Your task to perform on an android device: Open the SMS app Image 0: 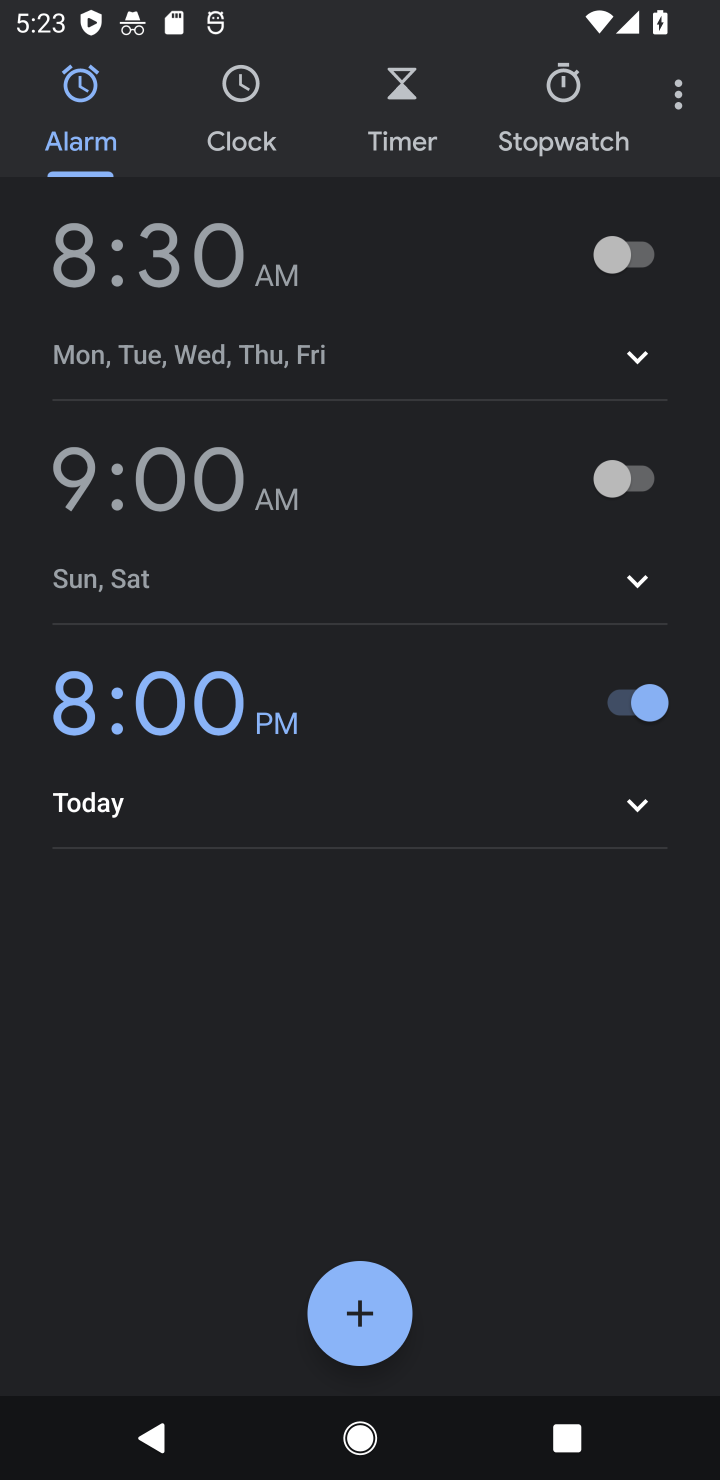
Step 0: press home button
Your task to perform on an android device: Open the SMS app Image 1: 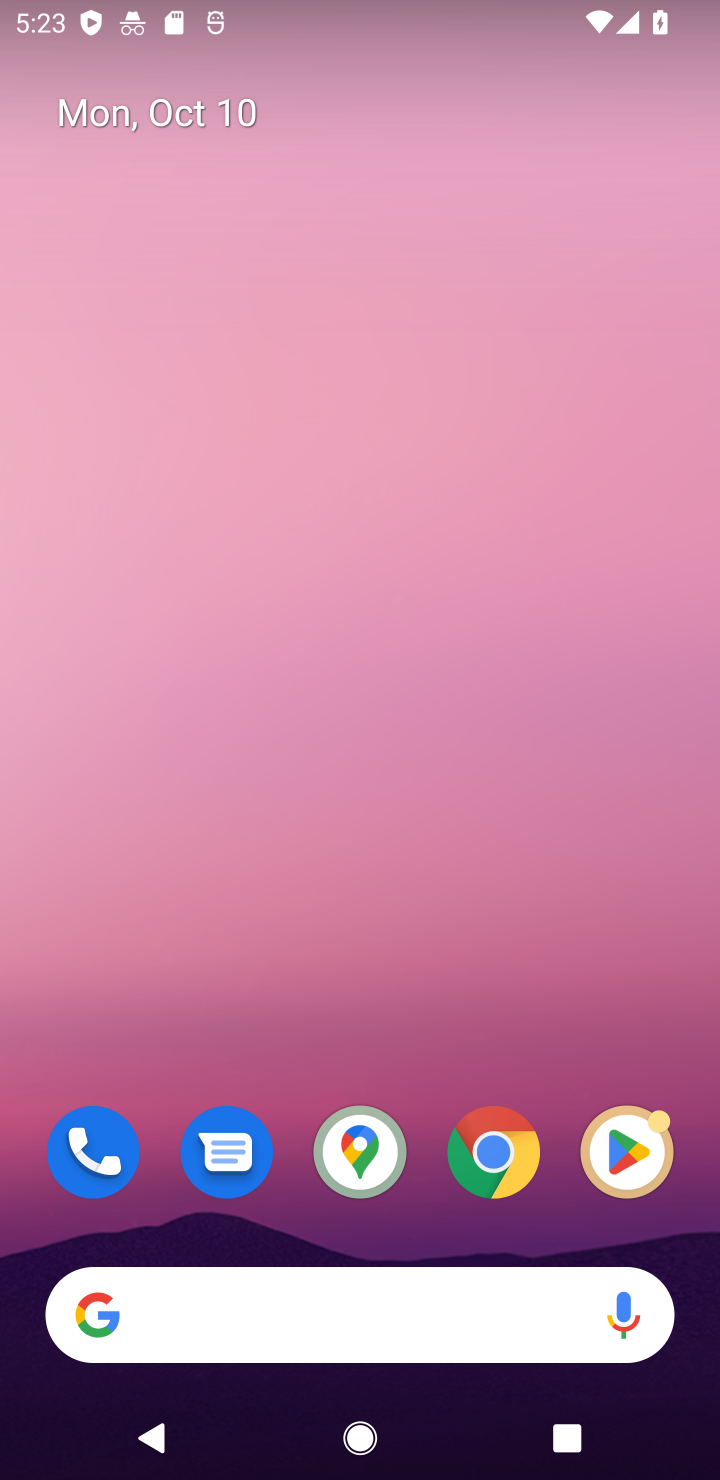
Step 1: drag from (318, 1335) to (353, 367)
Your task to perform on an android device: Open the SMS app Image 2: 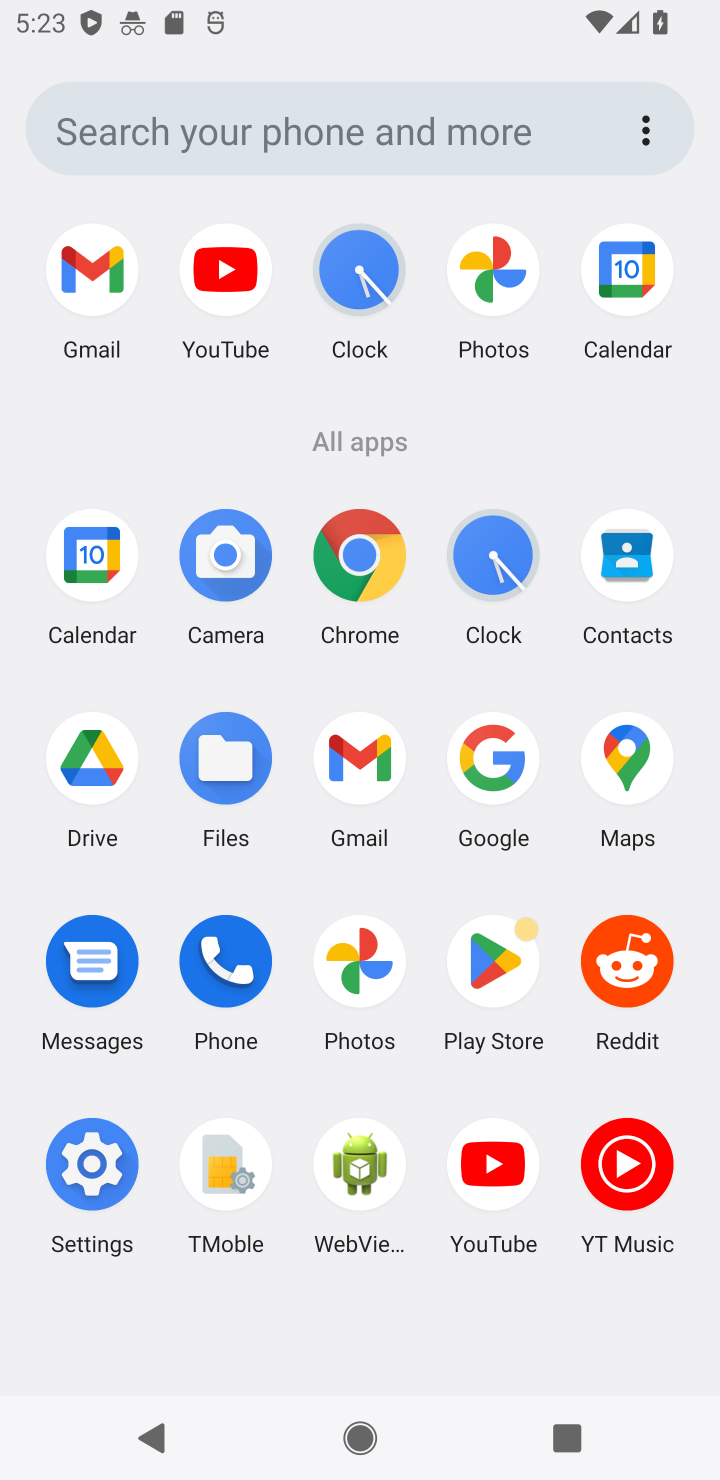
Step 2: click (505, 970)
Your task to perform on an android device: Open the SMS app Image 3: 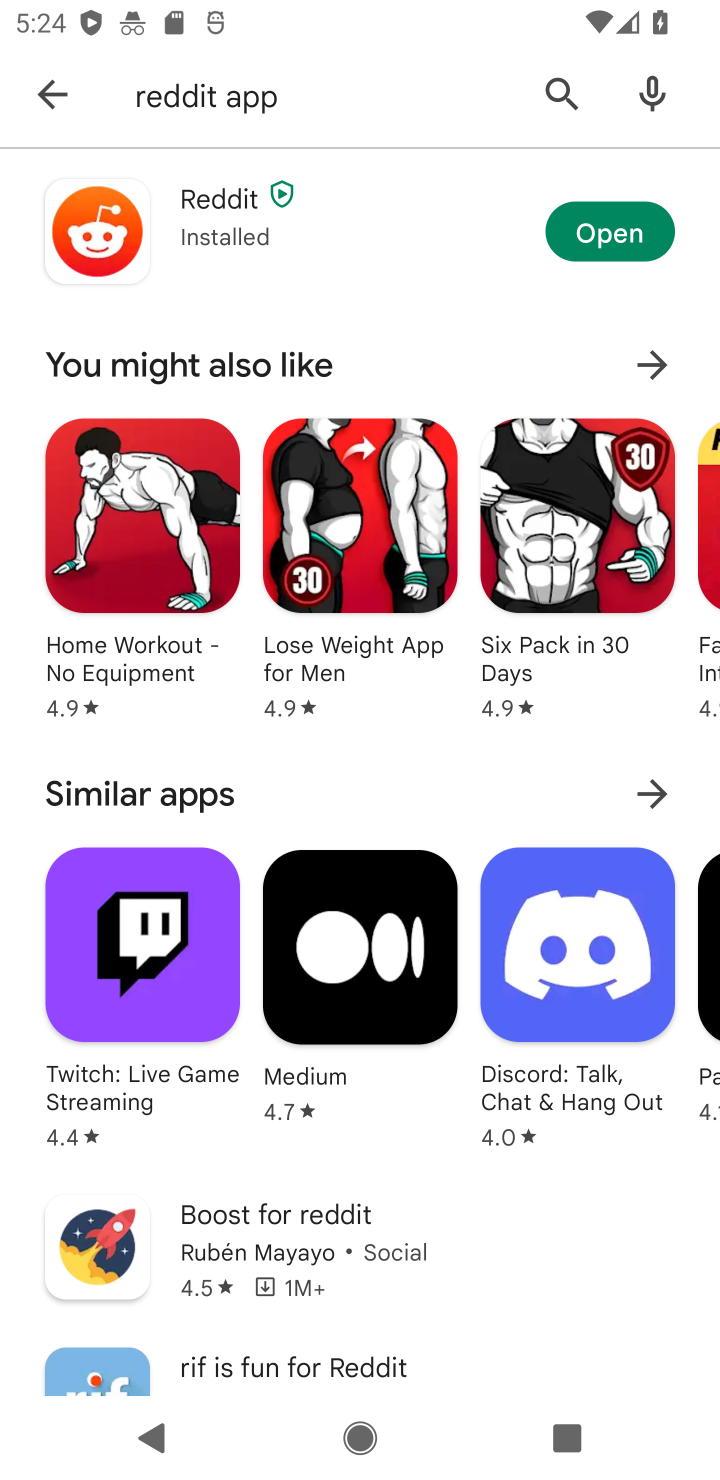
Step 3: click (550, 85)
Your task to perform on an android device: Open the SMS app Image 4: 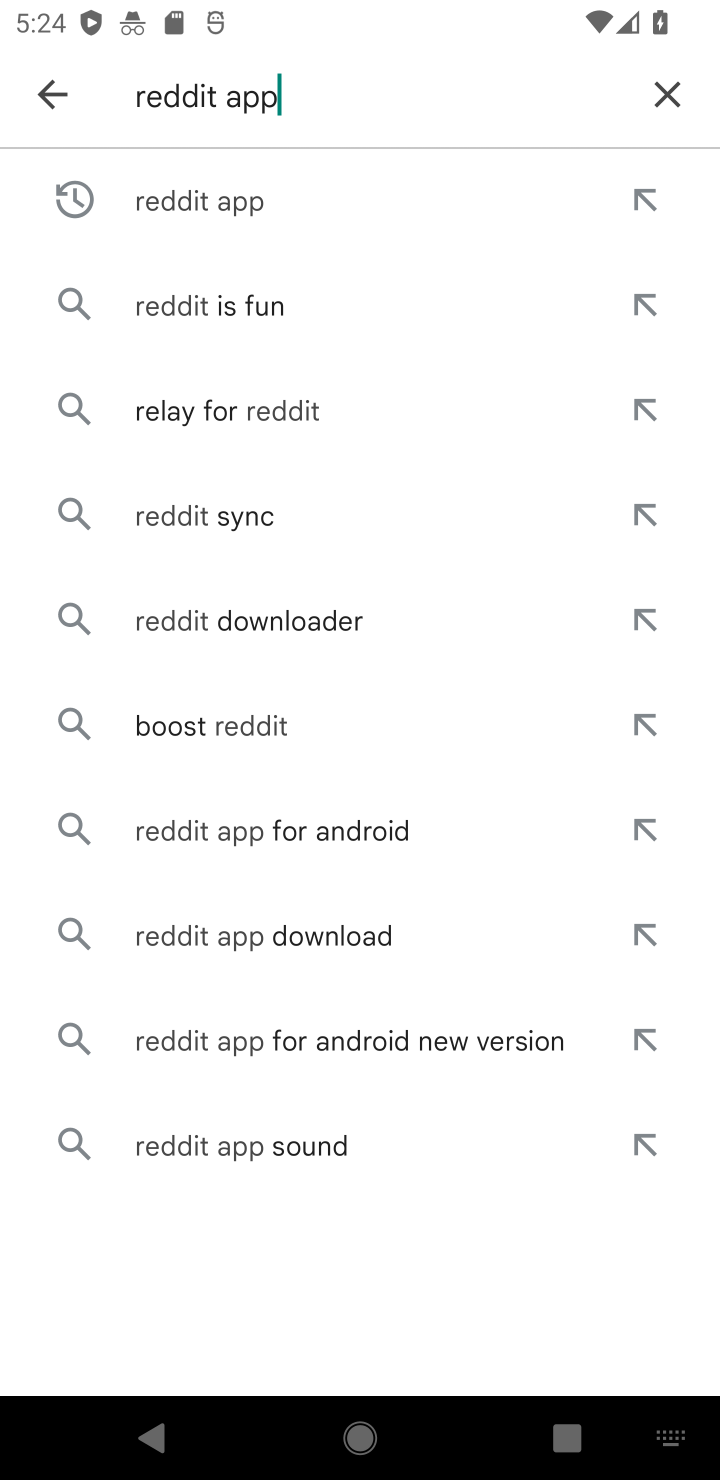
Step 4: click (658, 100)
Your task to perform on an android device: Open the SMS app Image 5: 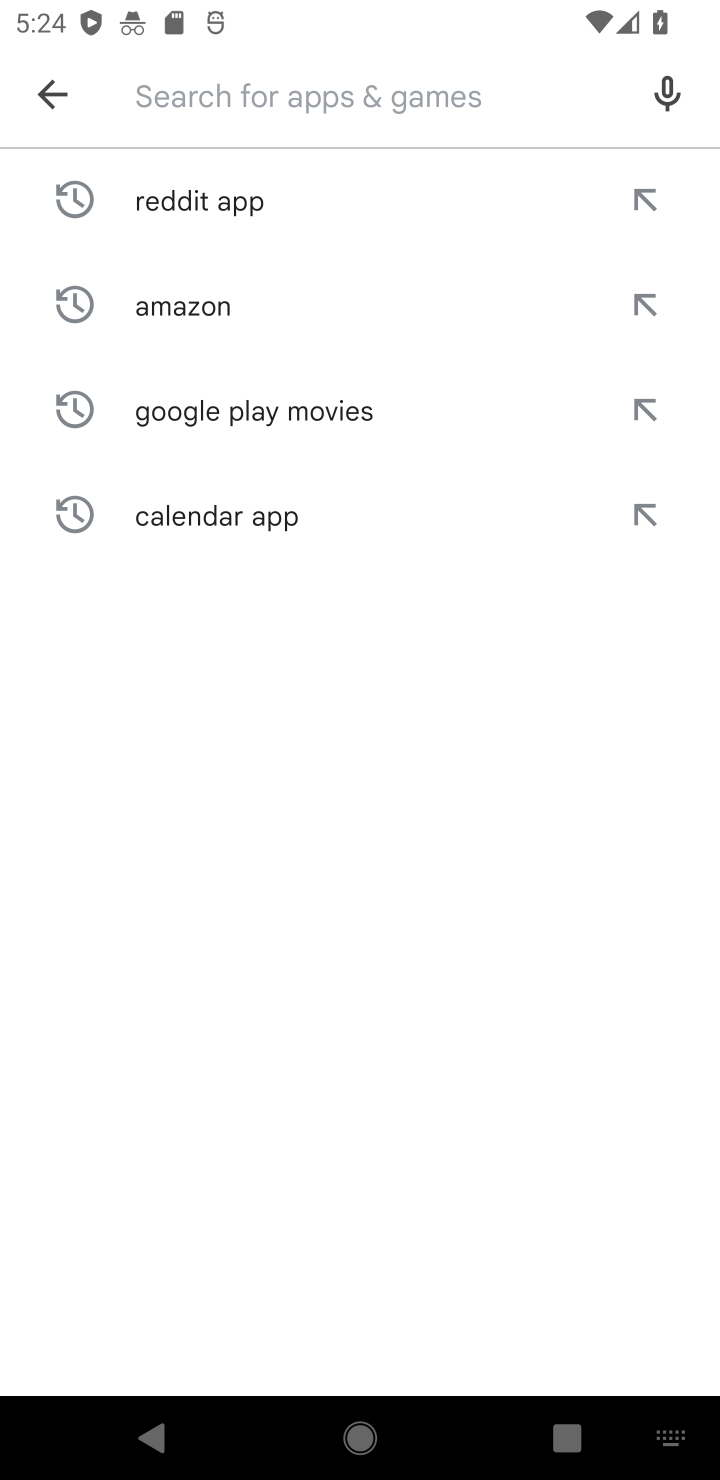
Step 5: type "SMS app"
Your task to perform on an android device: Open the SMS app Image 6: 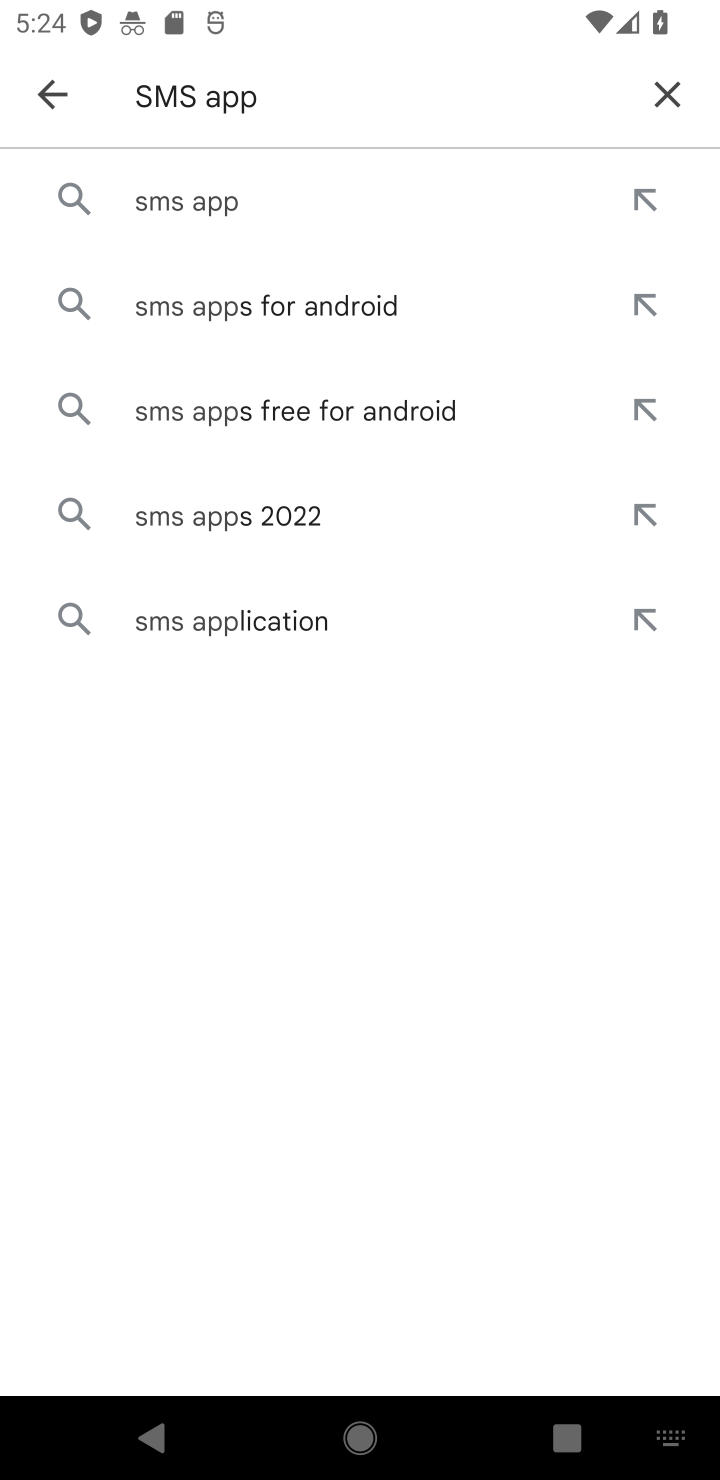
Step 6: click (232, 195)
Your task to perform on an android device: Open the SMS app Image 7: 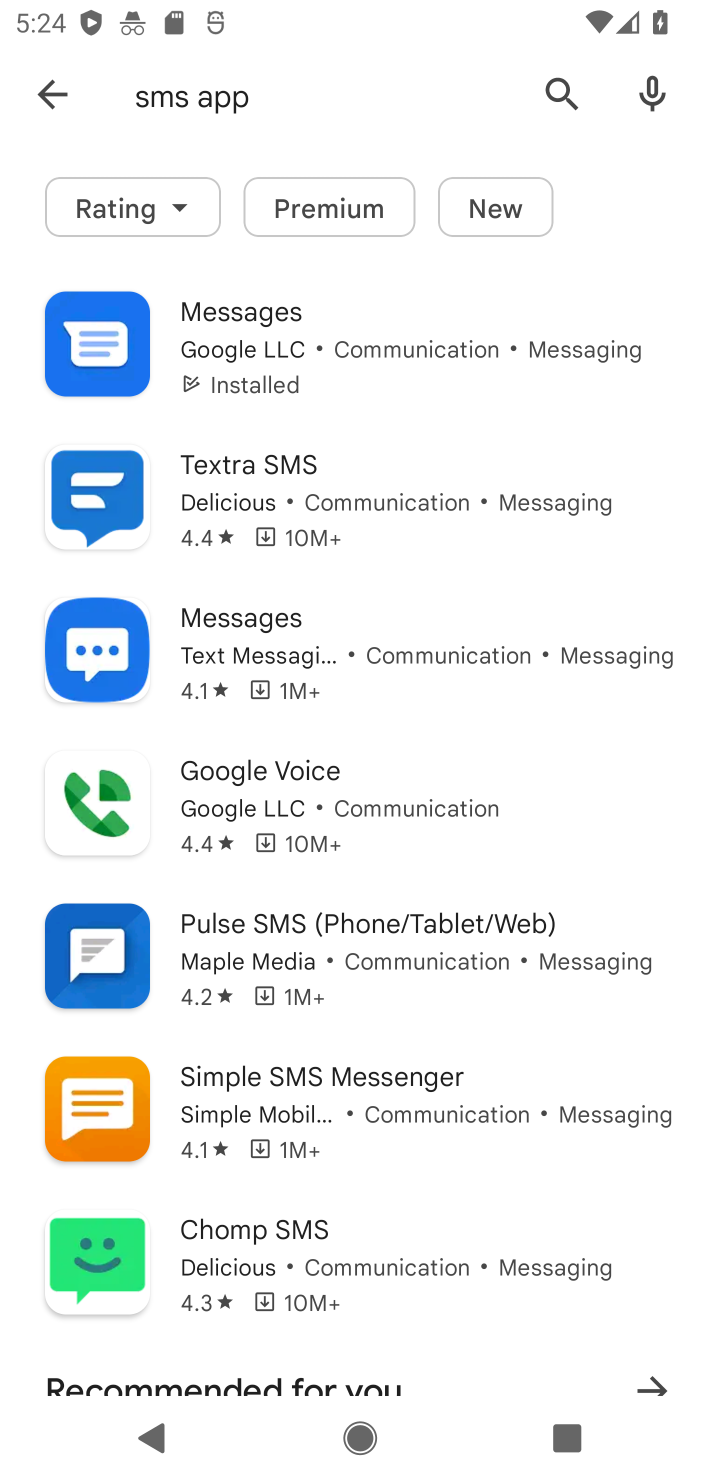
Step 7: click (222, 300)
Your task to perform on an android device: Open the SMS app Image 8: 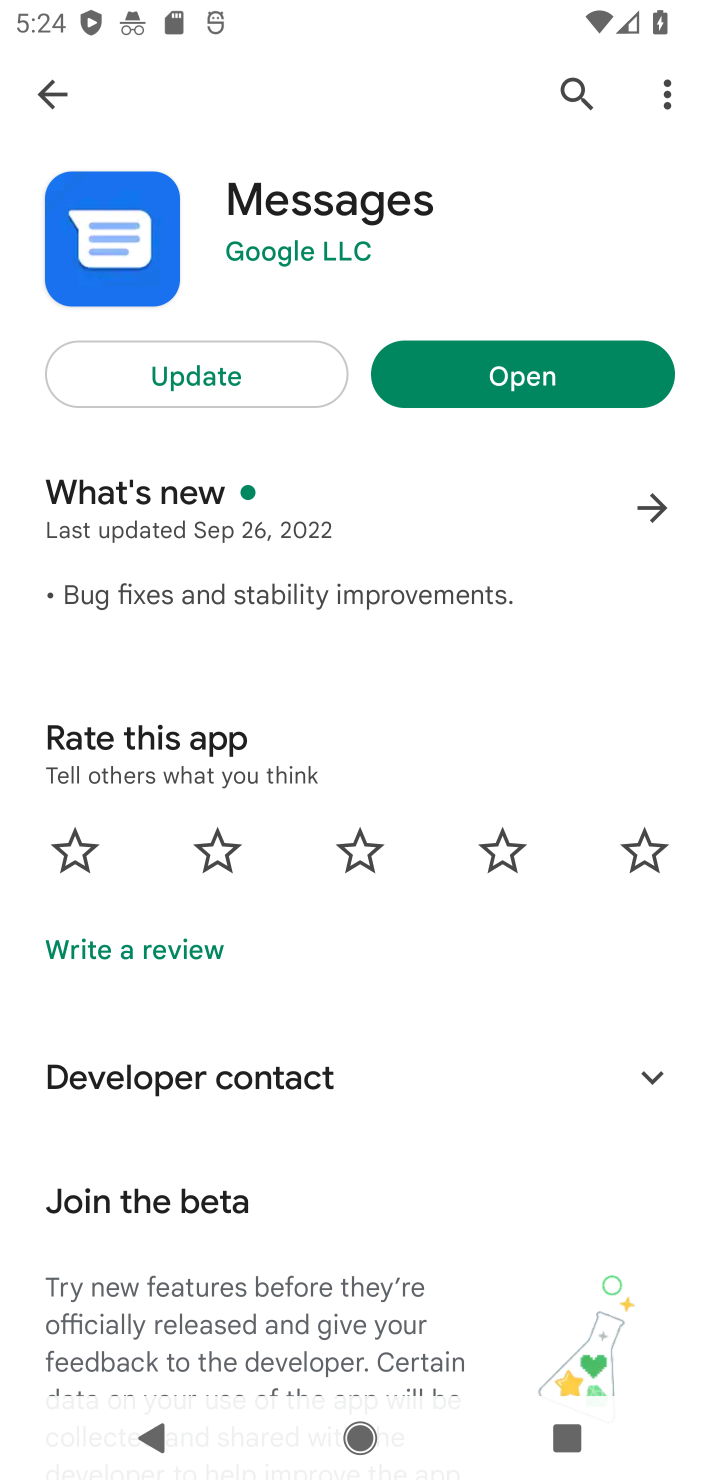
Step 8: click (463, 375)
Your task to perform on an android device: Open the SMS app Image 9: 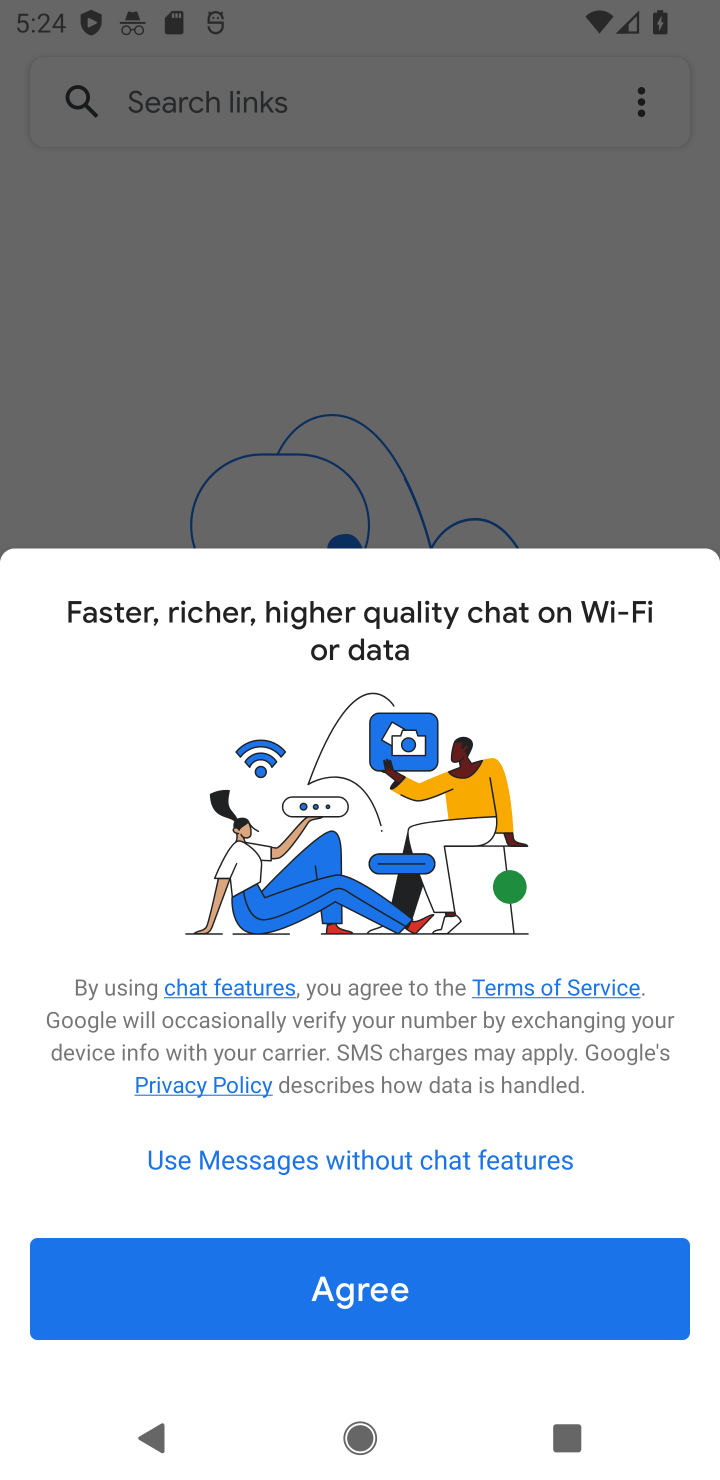
Step 9: click (377, 1300)
Your task to perform on an android device: Open the SMS app Image 10: 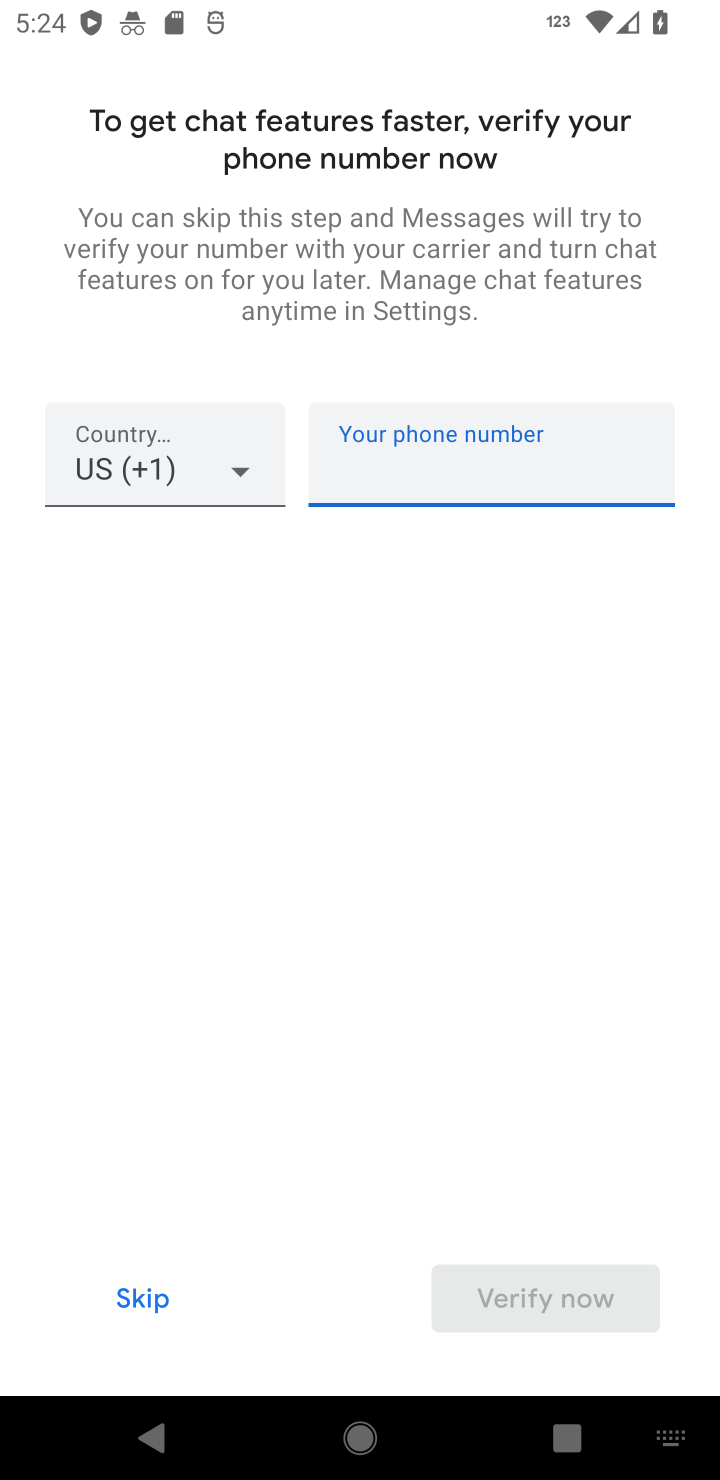
Step 10: click (147, 1298)
Your task to perform on an android device: Open the SMS app Image 11: 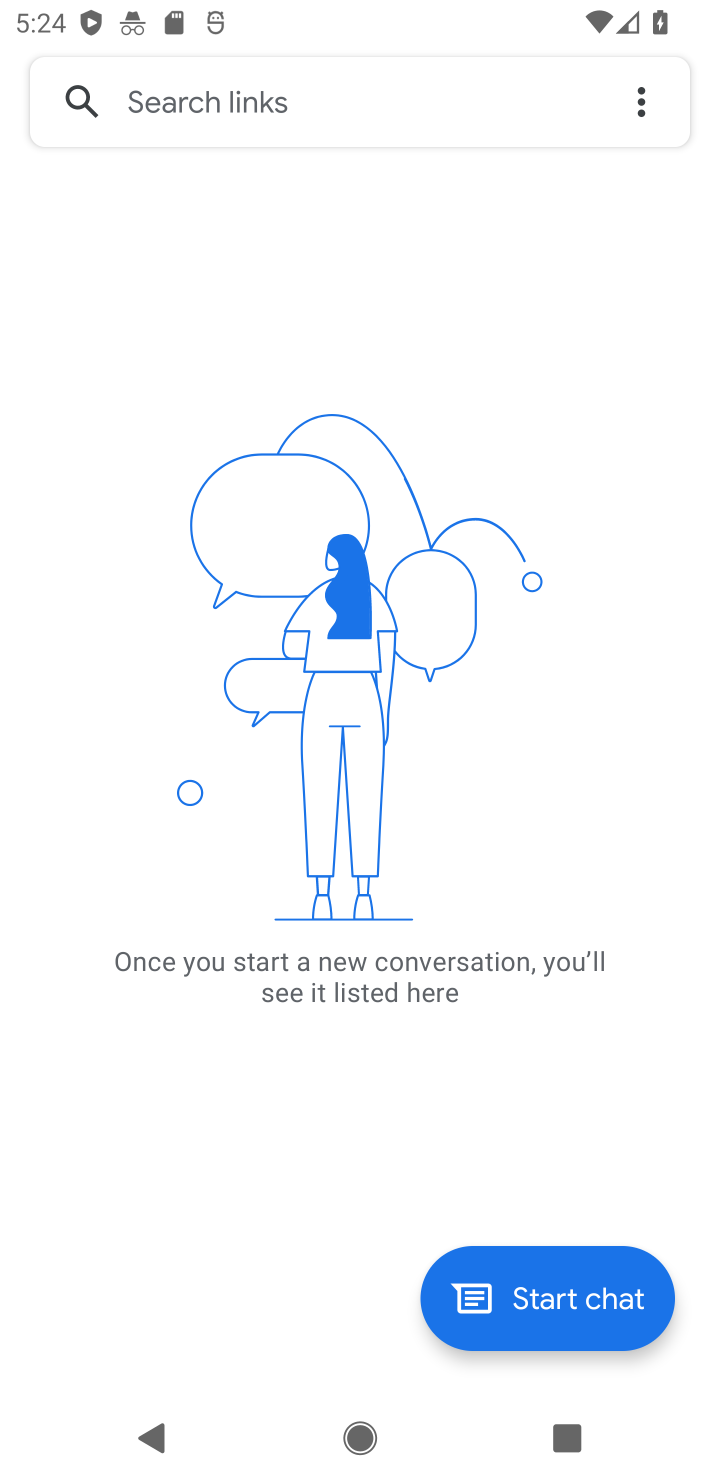
Step 11: task complete